Your task to perform on an android device: Open accessibility settings Image 0: 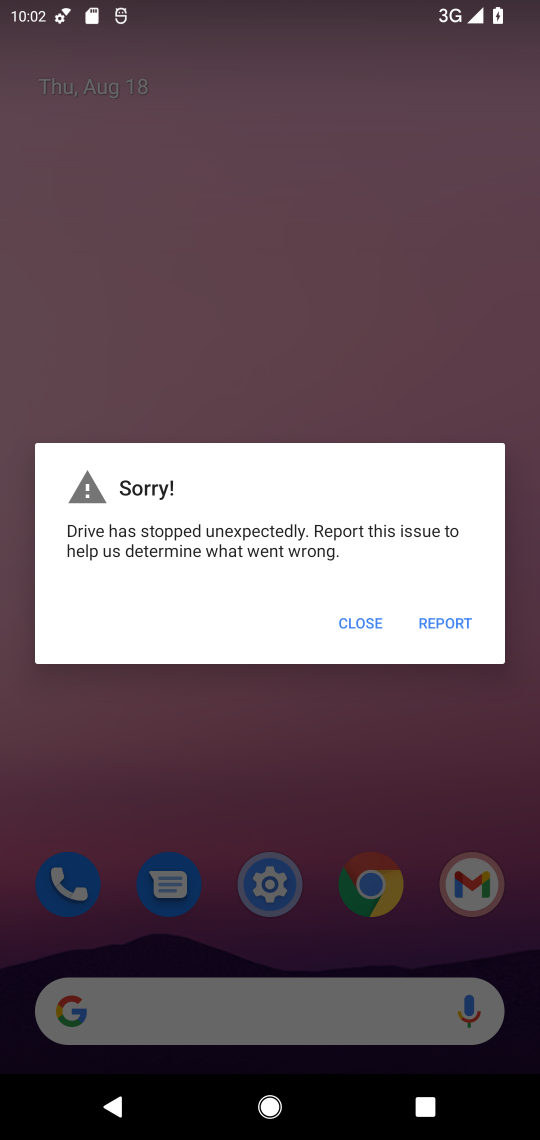
Step 0: click (361, 614)
Your task to perform on an android device: Open accessibility settings Image 1: 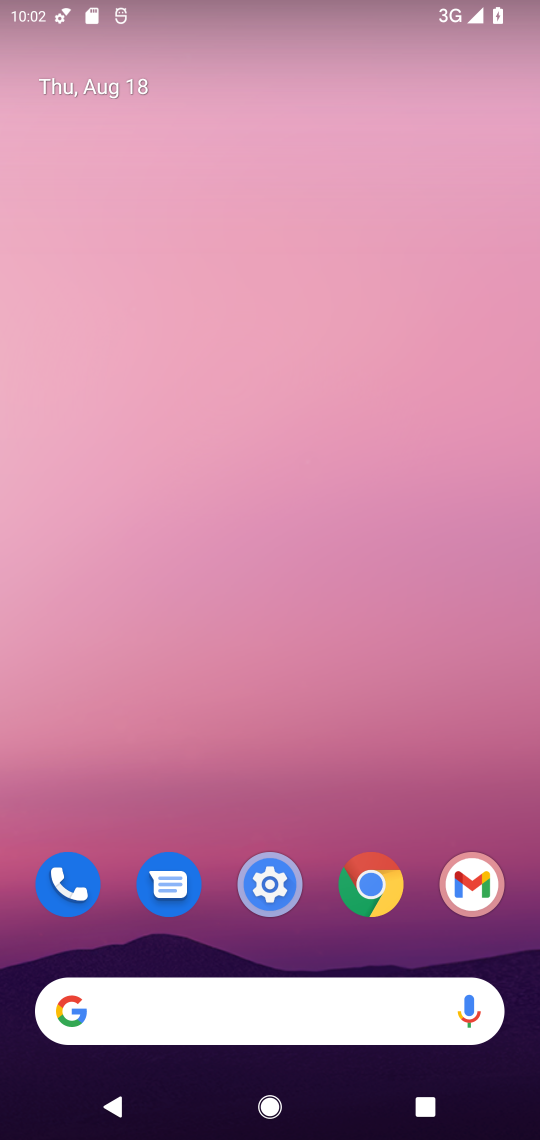
Step 1: click (270, 901)
Your task to perform on an android device: Open accessibility settings Image 2: 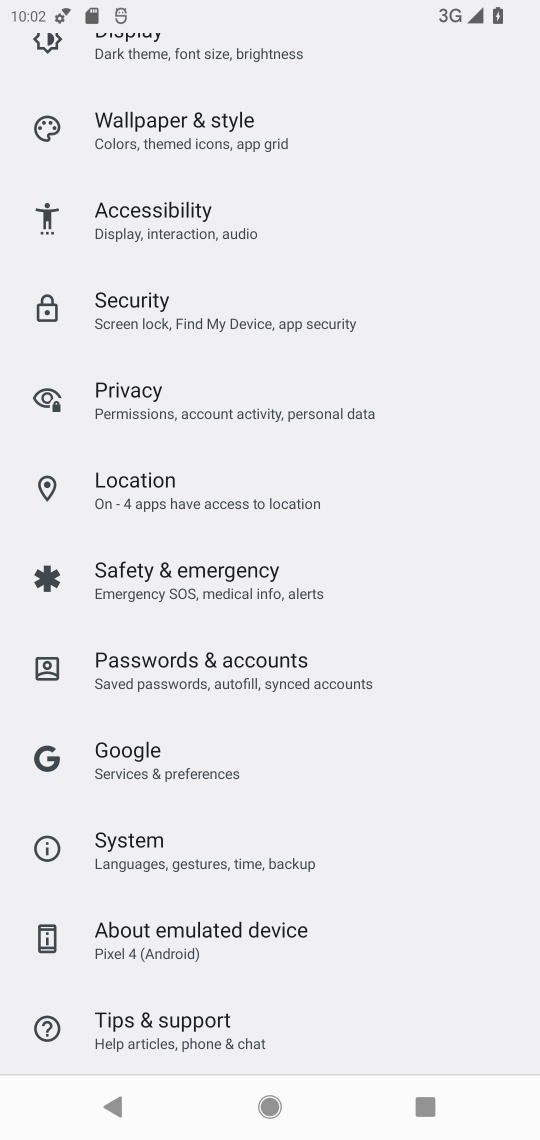
Step 2: click (120, 234)
Your task to perform on an android device: Open accessibility settings Image 3: 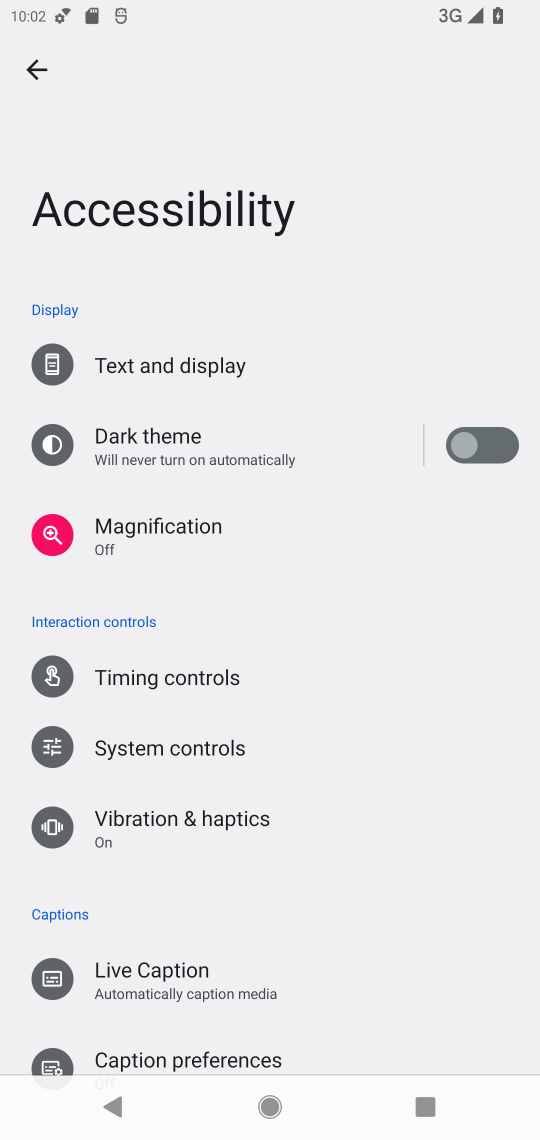
Step 3: task complete